Your task to perform on an android device: create a new album in the google photos Image 0: 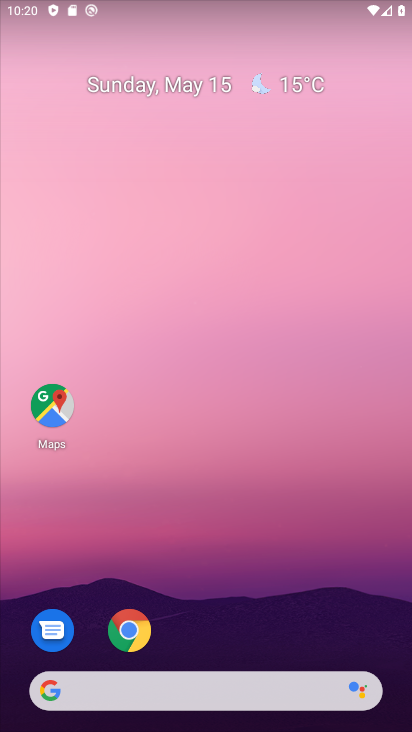
Step 0: drag from (198, 724) to (212, 207)
Your task to perform on an android device: create a new album in the google photos Image 1: 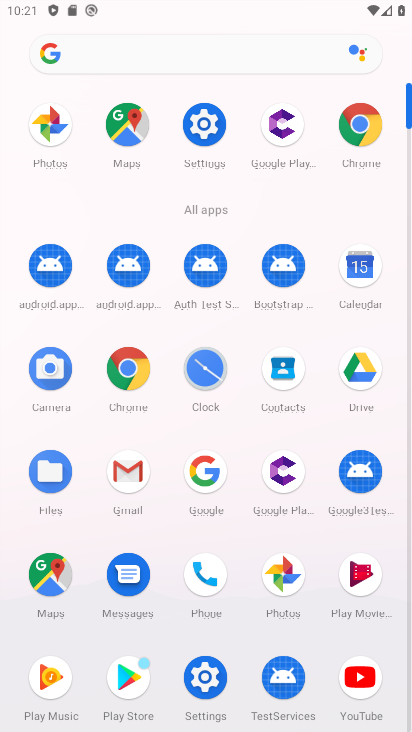
Step 1: click (45, 124)
Your task to perform on an android device: create a new album in the google photos Image 2: 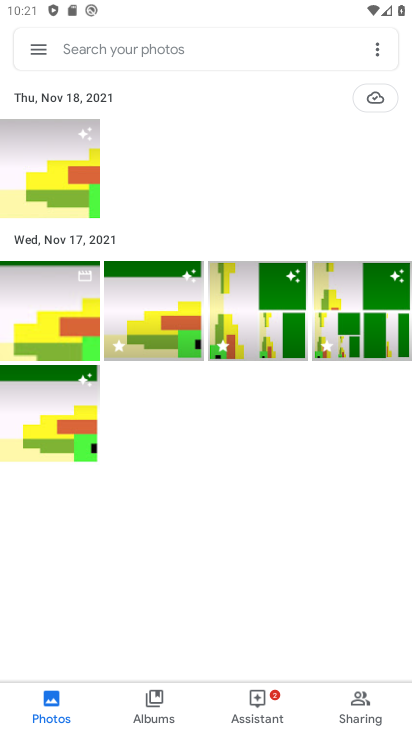
Step 2: click (378, 51)
Your task to perform on an android device: create a new album in the google photos Image 3: 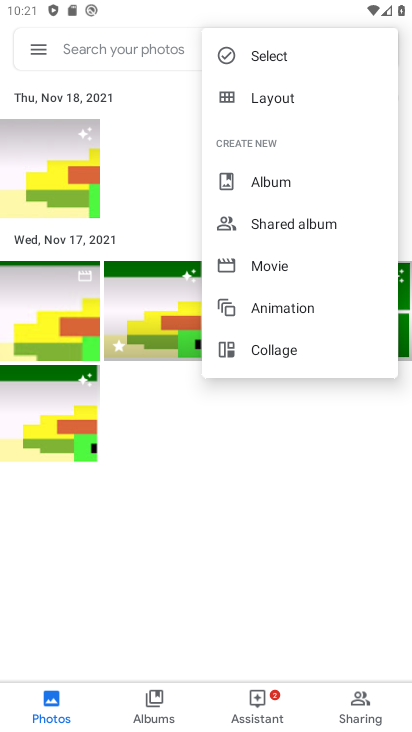
Step 3: click (268, 180)
Your task to perform on an android device: create a new album in the google photos Image 4: 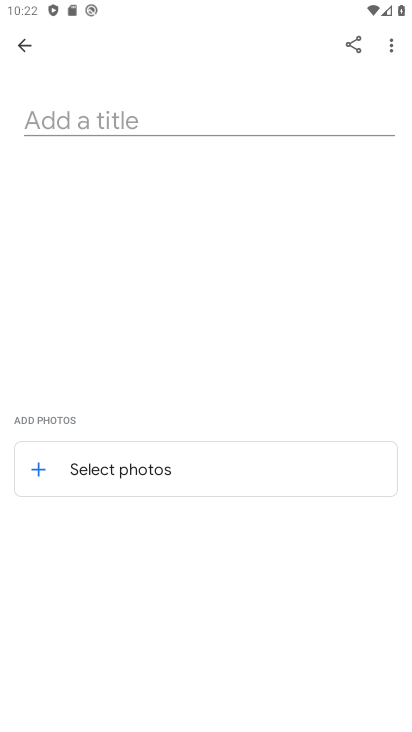
Step 4: click (128, 114)
Your task to perform on an android device: create a new album in the google photos Image 5: 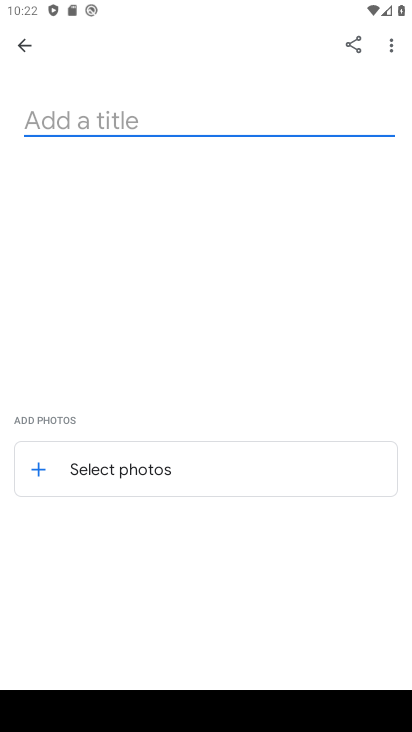
Step 5: type "tong chuu"
Your task to perform on an android device: create a new album in the google photos Image 6: 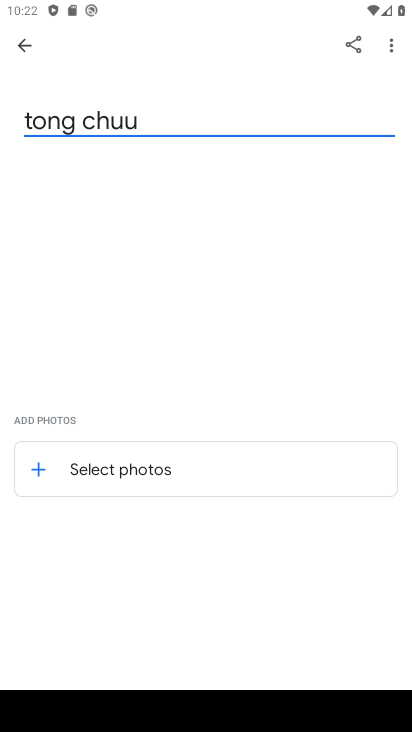
Step 6: click (101, 463)
Your task to perform on an android device: create a new album in the google photos Image 7: 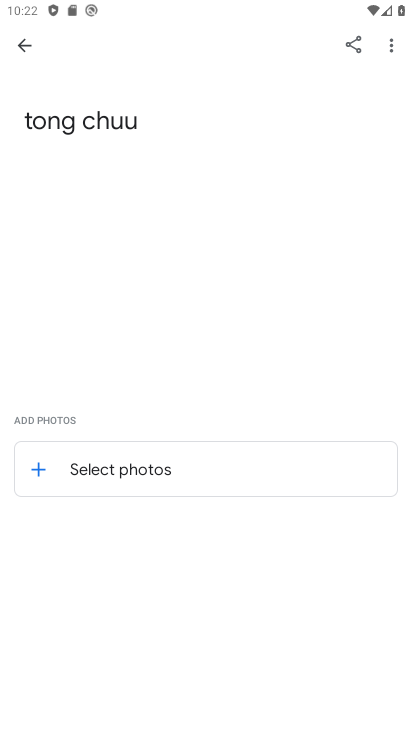
Step 7: click (41, 466)
Your task to perform on an android device: create a new album in the google photos Image 8: 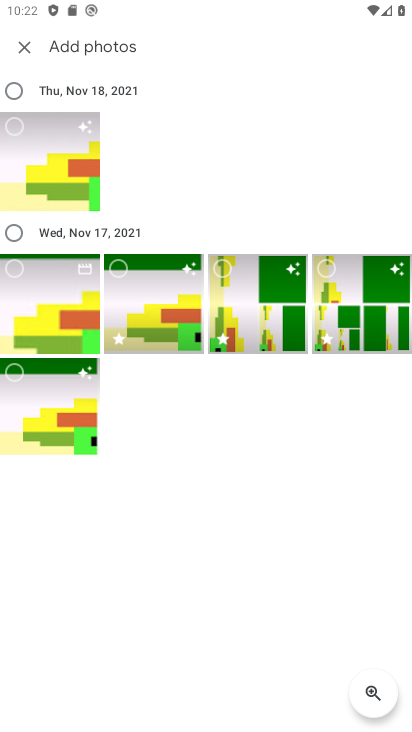
Step 8: click (15, 269)
Your task to perform on an android device: create a new album in the google photos Image 9: 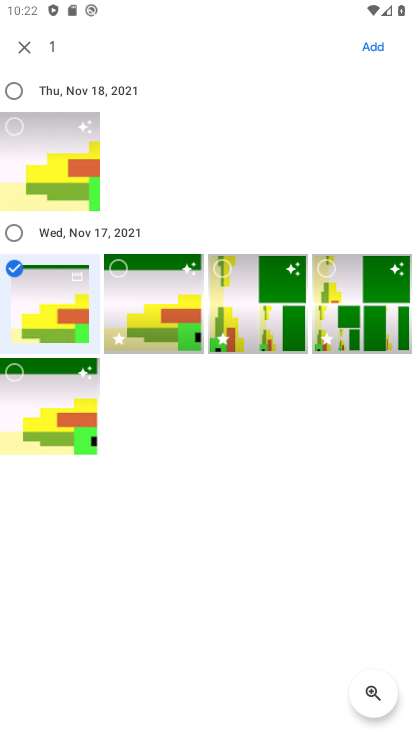
Step 9: click (120, 266)
Your task to perform on an android device: create a new album in the google photos Image 10: 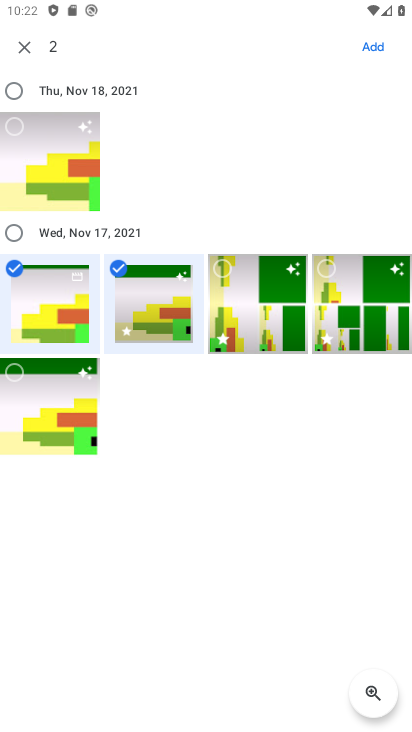
Step 10: click (375, 45)
Your task to perform on an android device: create a new album in the google photos Image 11: 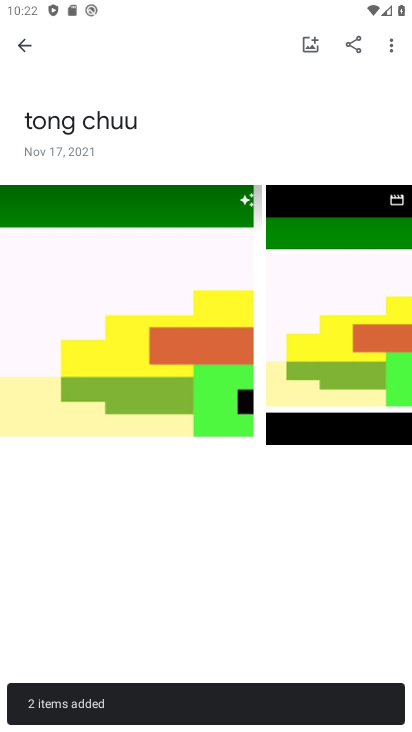
Step 11: task complete